Your task to perform on an android device: set an alarm Image 0: 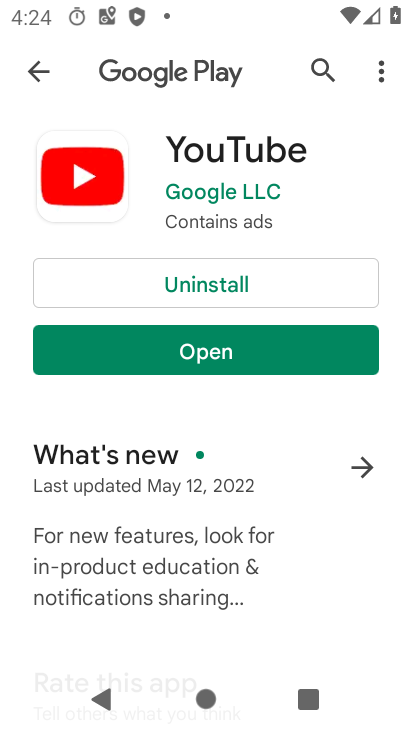
Step 0: press back button
Your task to perform on an android device: set an alarm Image 1: 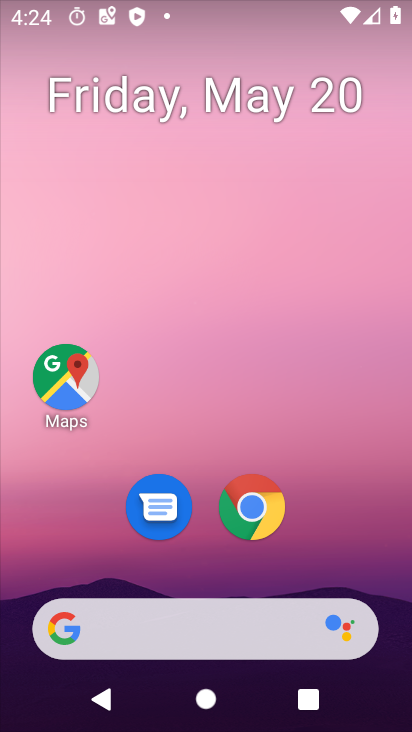
Step 1: drag from (311, 541) to (197, 135)
Your task to perform on an android device: set an alarm Image 2: 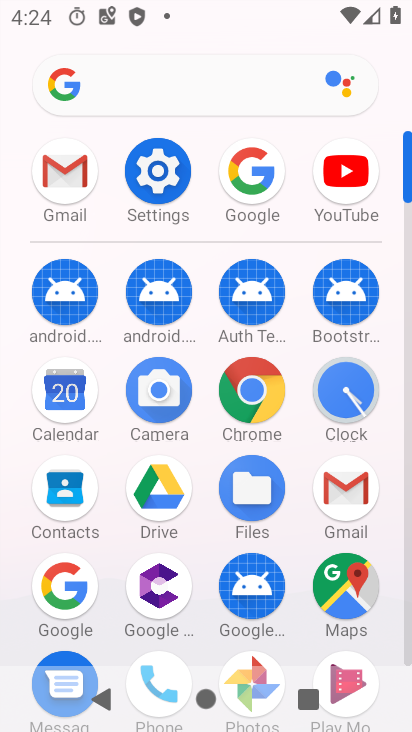
Step 2: click (345, 389)
Your task to perform on an android device: set an alarm Image 3: 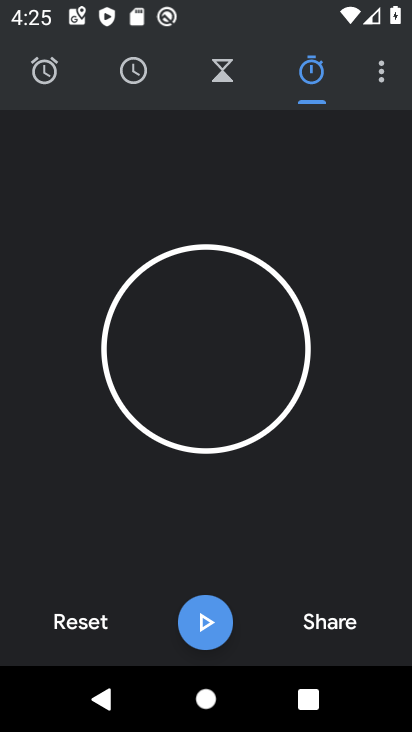
Step 3: click (40, 65)
Your task to perform on an android device: set an alarm Image 4: 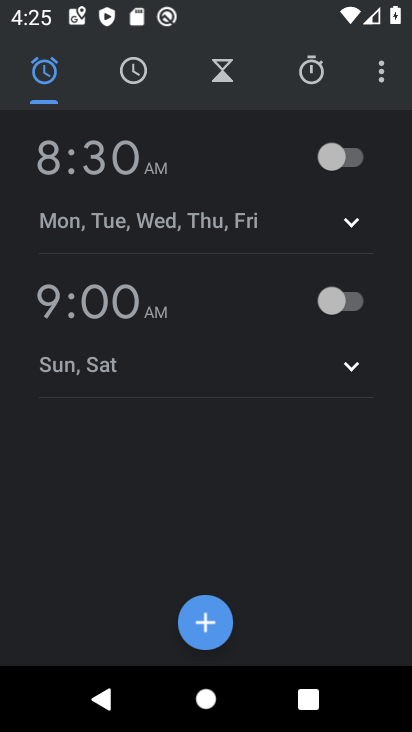
Step 4: click (209, 616)
Your task to perform on an android device: set an alarm Image 5: 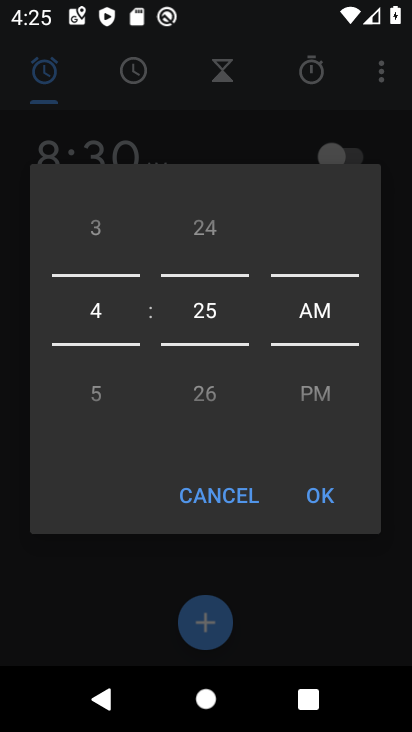
Step 5: drag from (100, 220) to (108, 419)
Your task to perform on an android device: set an alarm Image 6: 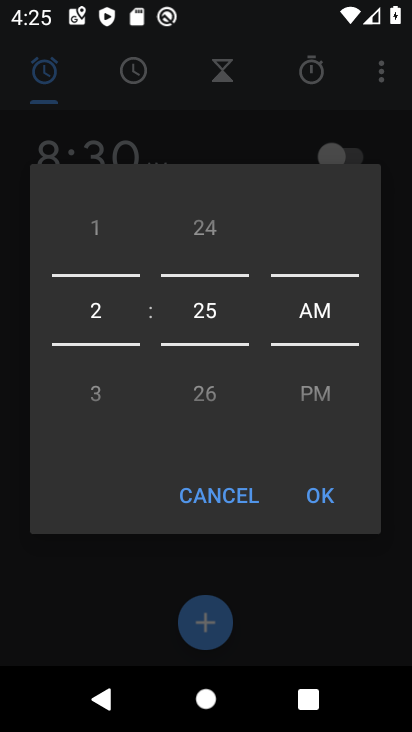
Step 6: drag from (100, 220) to (127, 361)
Your task to perform on an android device: set an alarm Image 7: 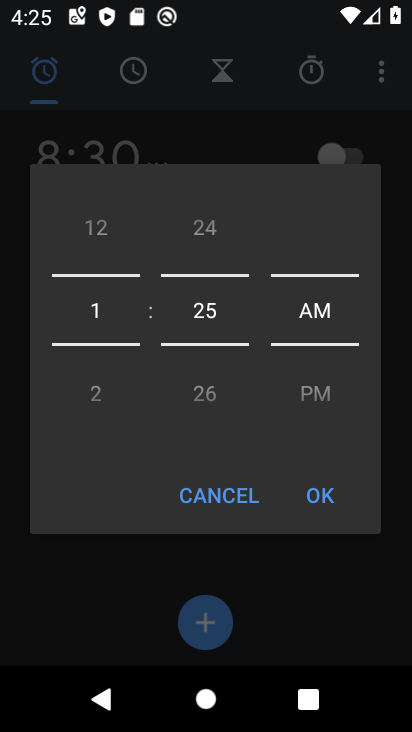
Step 7: drag from (204, 219) to (217, 392)
Your task to perform on an android device: set an alarm Image 8: 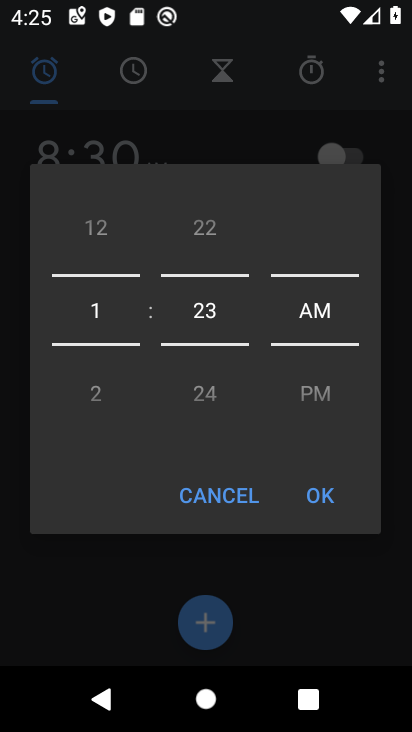
Step 8: drag from (211, 234) to (232, 375)
Your task to perform on an android device: set an alarm Image 9: 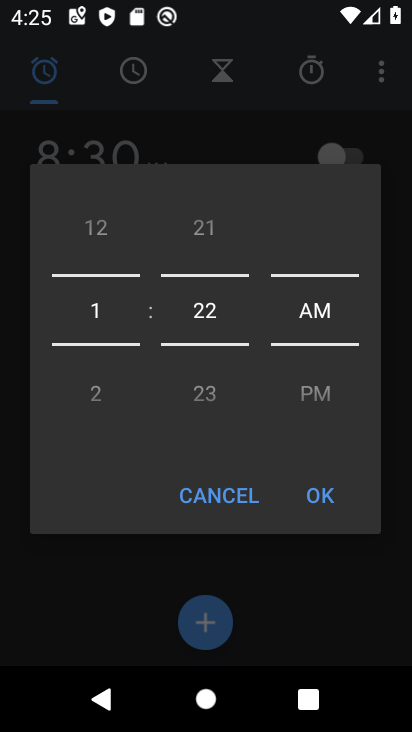
Step 9: drag from (218, 224) to (219, 413)
Your task to perform on an android device: set an alarm Image 10: 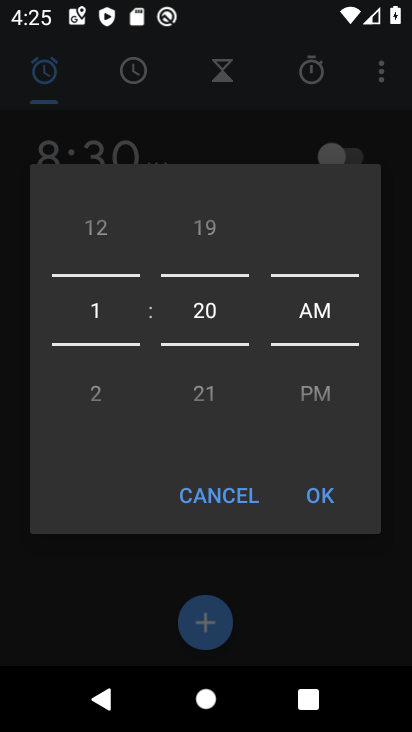
Step 10: drag from (291, 379) to (309, 186)
Your task to perform on an android device: set an alarm Image 11: 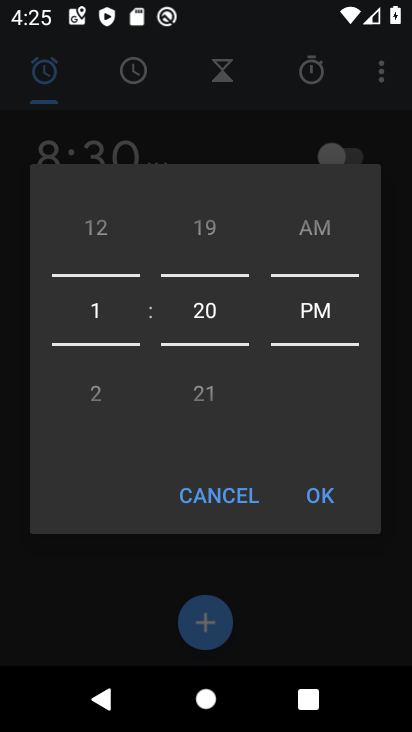
Step 11: click (301, 485)
Your task to perform on an android device: set an alarm Image 12: 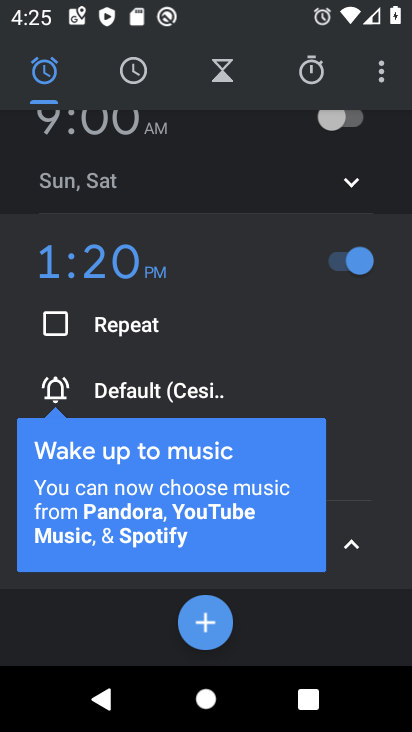
Step 12: click (351, 543)
Your task to perform on an android device: set an alarm Image 13: 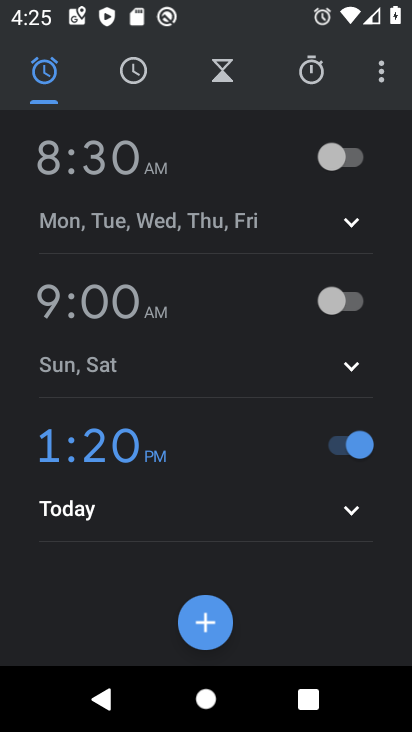
Step 13: task complete